Your task to perform on an android device: delete location history Image 0: 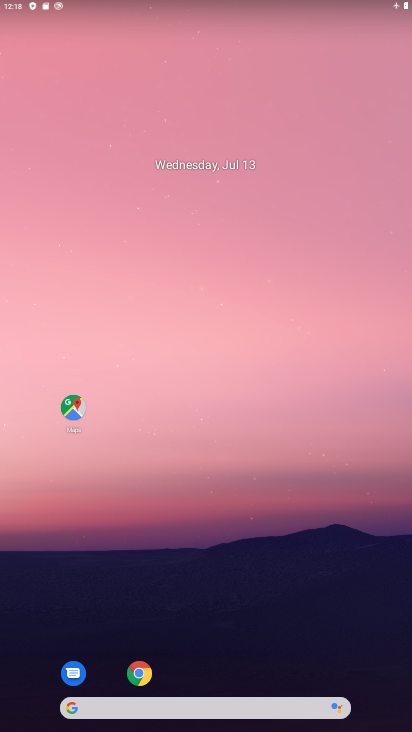
Step 0: drag from (288, 671) to (274, 180)
Your task to perform on an android device: delete location history Image 1: 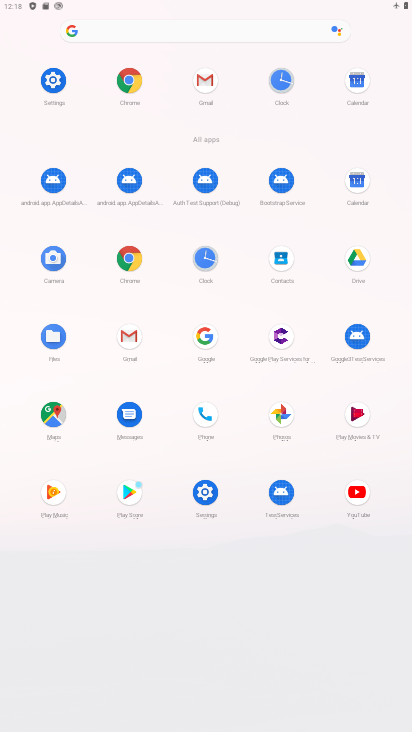
Step 1: click (40, 93)
Your task to perform on an android device: delete location history Image 2: 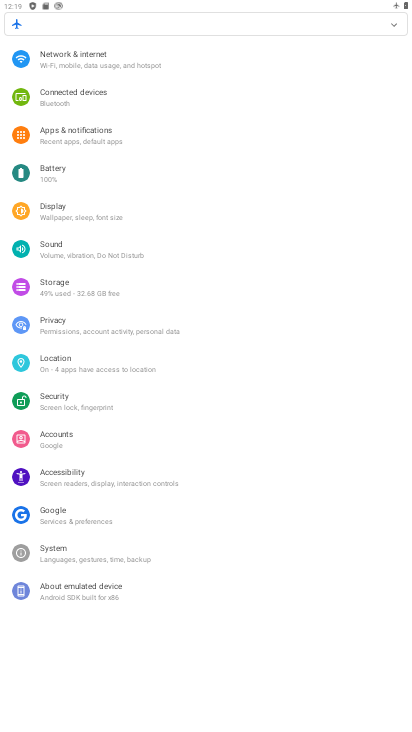
Step 2: click (89, 361)
Your task to perform on an android device: delete location history Image 3: 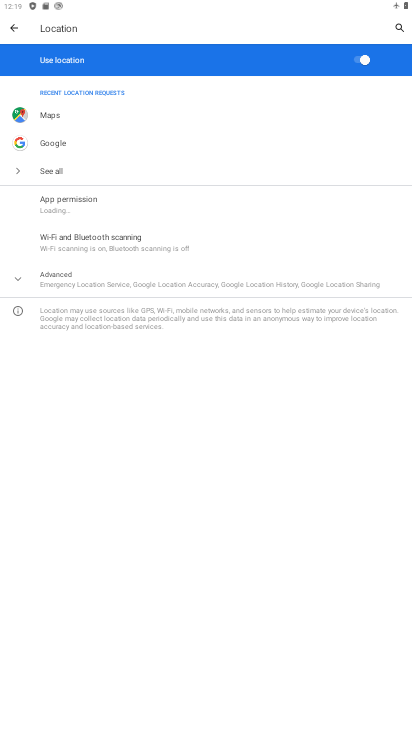
Step 3: click (82, 286)
Your task to perform on an android device: delete location history Image 4: 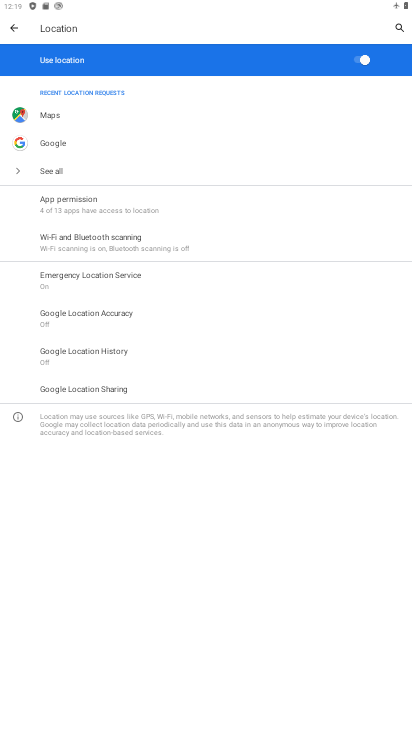
Step 4: click (121, 358)
Your task to perform on an android device: delete location history Image 5: 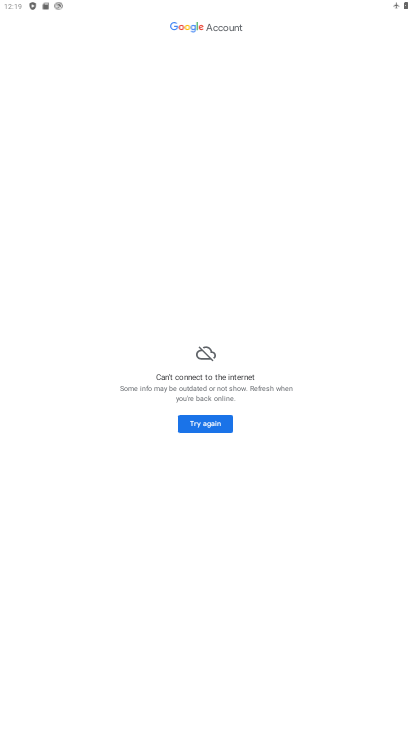
Step 5: click (209, 433)
Your task to perform on an android device: delete location history Image 6: 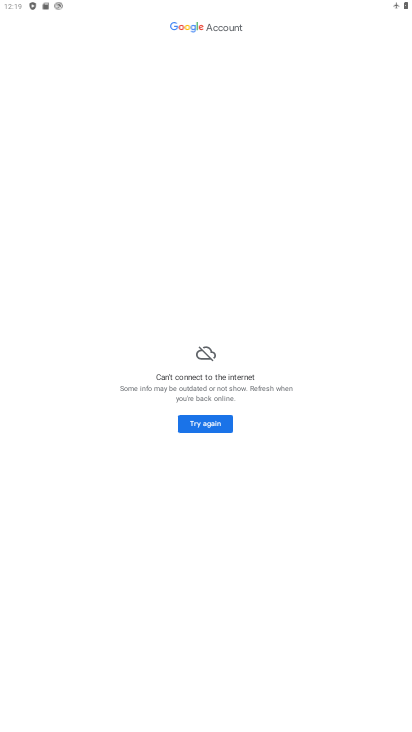
Step 6: task complete